Your task to perform on an android device: open device folders in google photos Image 0: 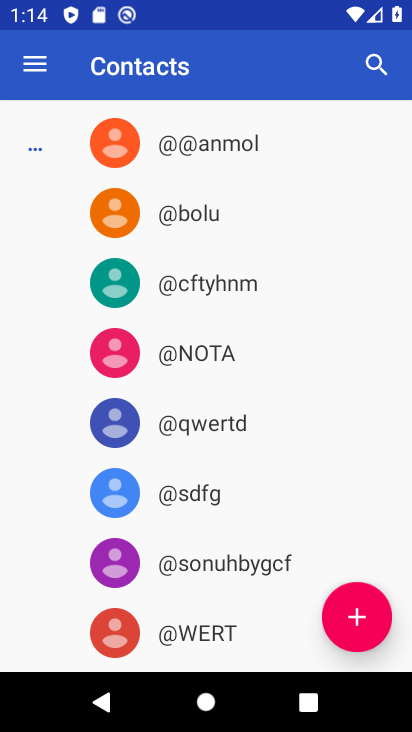
Step 0: press back button
Your task to perform on an android device: open device folders in google photos Image 1: 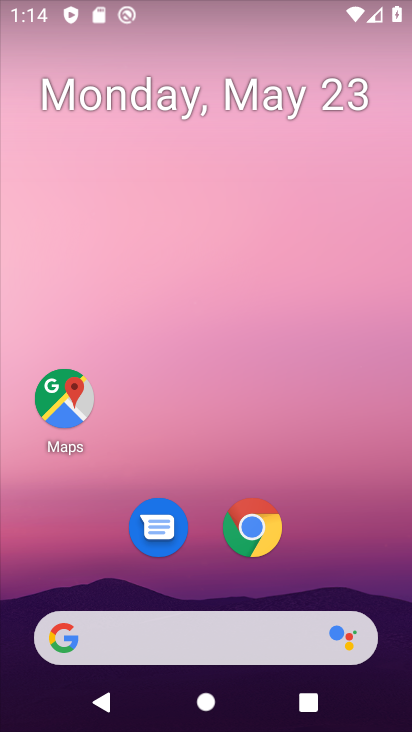
Step 1: drag from (186, 591) to (248, 92)
Your task to perform on an android device: open device folders in google photos Image 2: 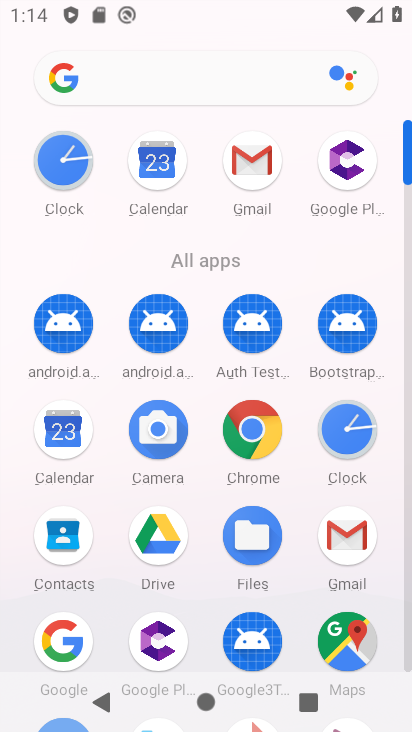
Step 2: drag from (175, 633) to (245, 117)
Your task to perform on an android device: open device folders in google photos Image 3: 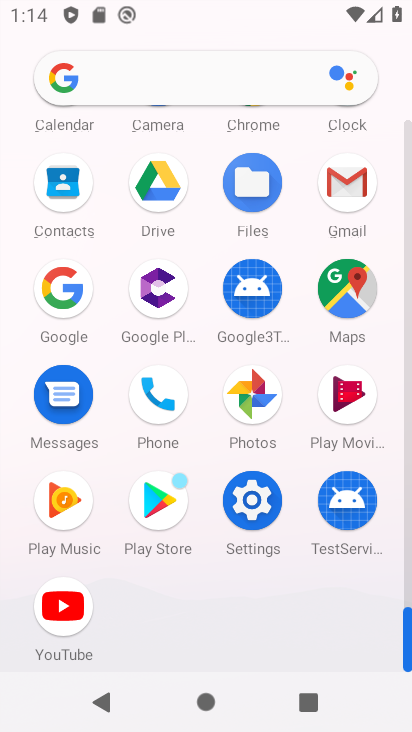
Step 3: click (245, 375)
Your task to perform on an android device: open device folders in google photos Image 4: 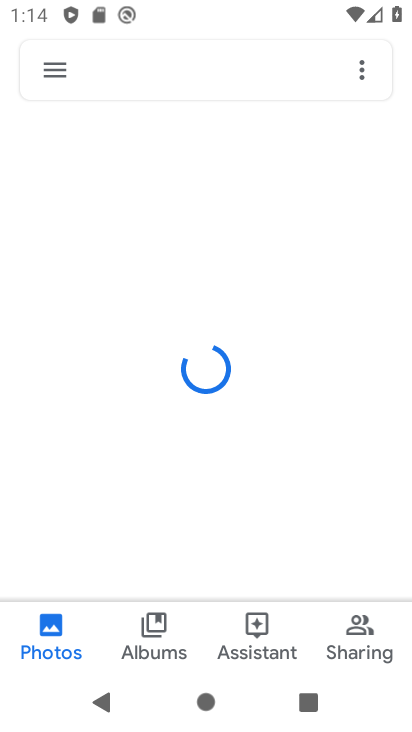
Step 4: click (58, 70)
Your task to perform on an android device: open device folders in google photos Image 5: 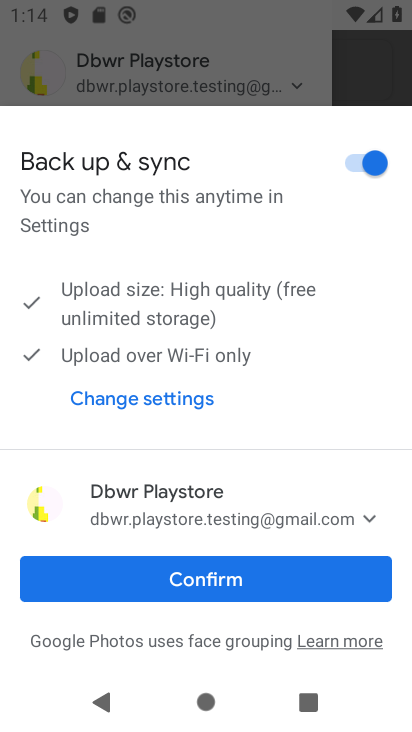
Step 5: click (185, 579)
Your task to perform on an android device: open device folders in google photos Image 6: 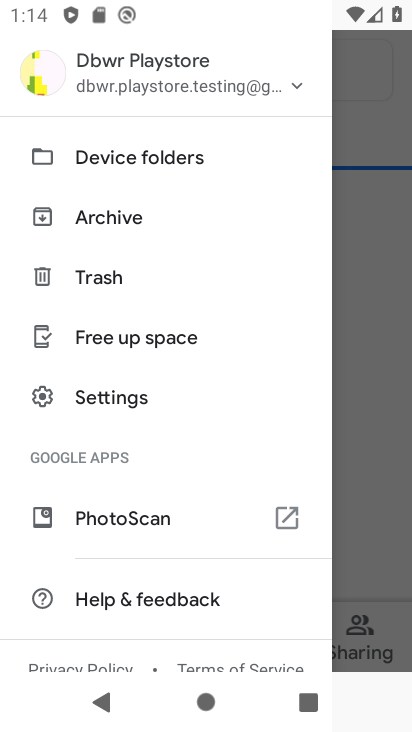
Step 6: click (148, 169)
Your task to perform on an android device: open device folders in google photos Image 7: 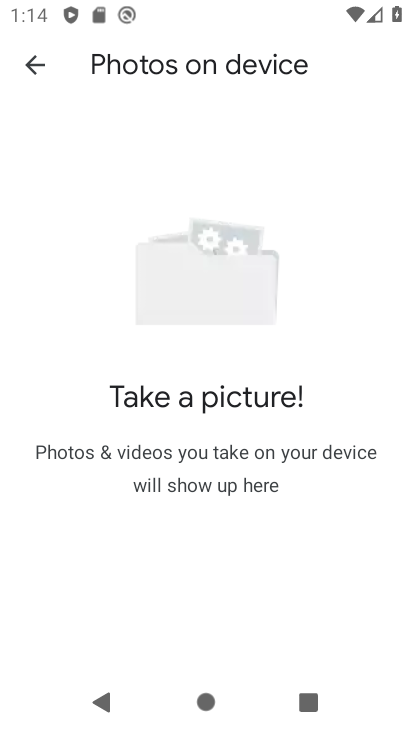
Step 7: task complete